Your task to perform on an android device: Open display settings Image 0: 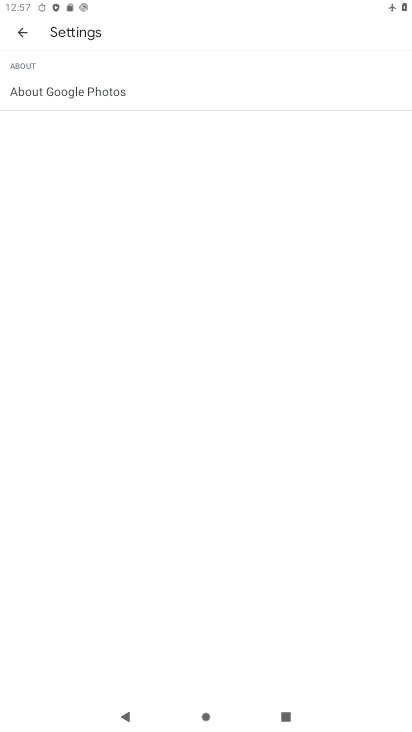
Step 0: press home button
Your task to perform on an android device: Open display settings Image 1: 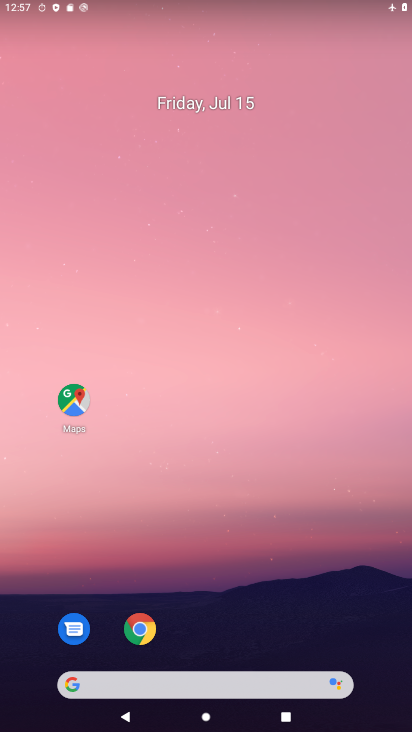
Step 1: drag from (229, 642) to (232, 93)
Your task to perform on an android device: Open display settings Image 2: 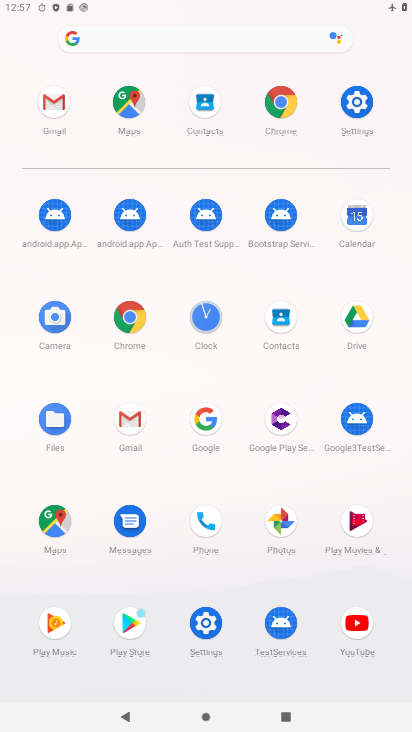
Step 2: click (195, 632)
Your task to perform on an android device: Open display settings Image 3: 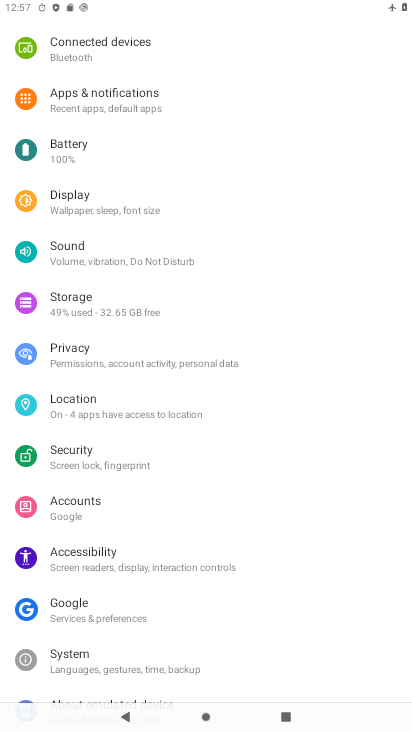
Step 3: click (94, 211)
Your task to perform on an android device: Open display settings Image 4: 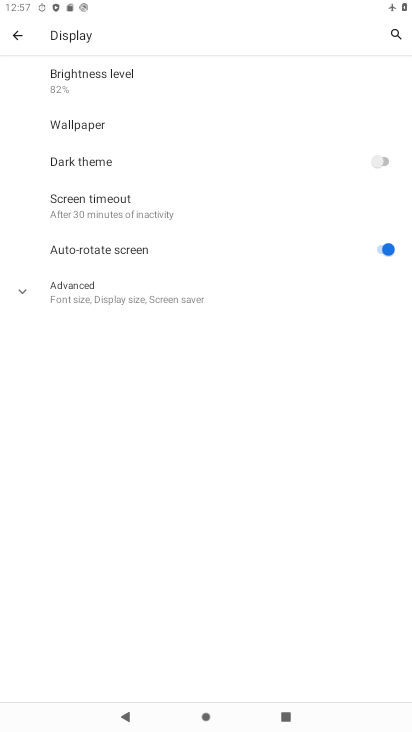
Step 4: task complete